Your task to perform on an android device: toggle translation in the chrome app Image 0: 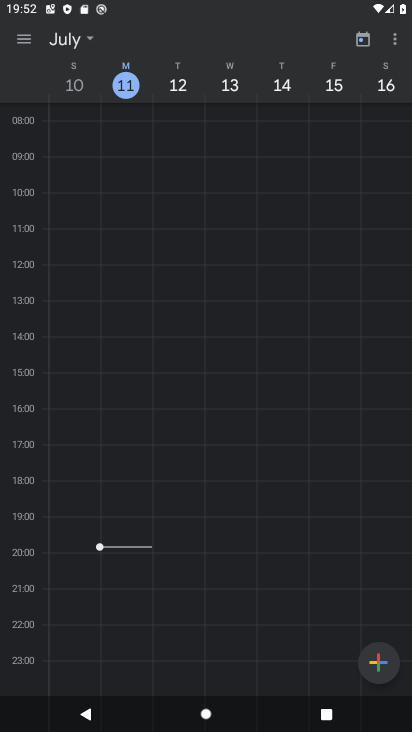
Step 0: press home button
Your task to perform on an android device: toggle translation in the chrome app Image 1: 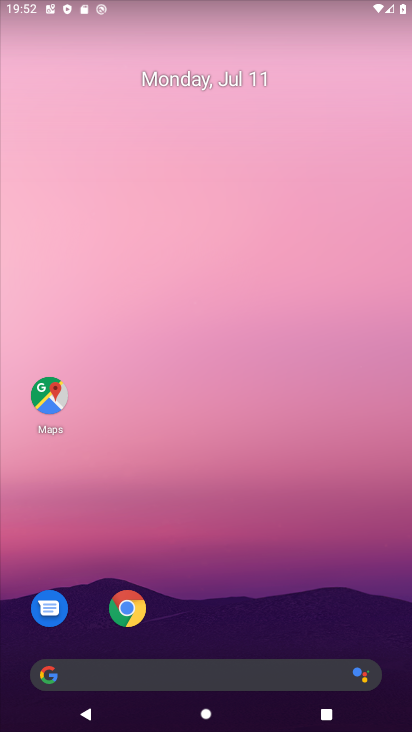
Step 1: click (128, 601)
Your task to perform on an android device: toggle translation in the chrome app Image 2: 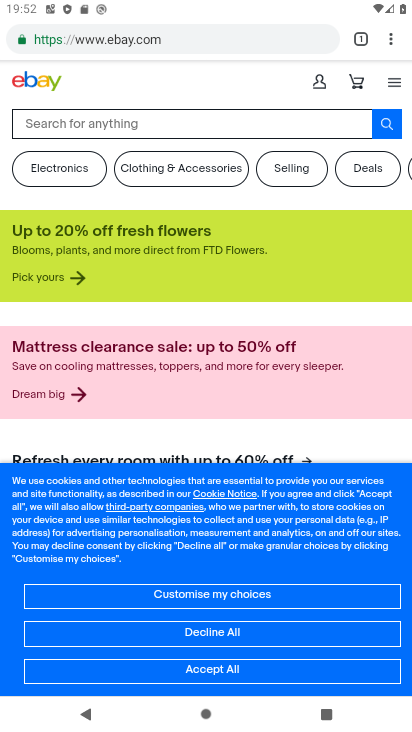
Step 2: click (396, 46)
Your task to perform on an android device: toggle translation in the chrome app Image 3: 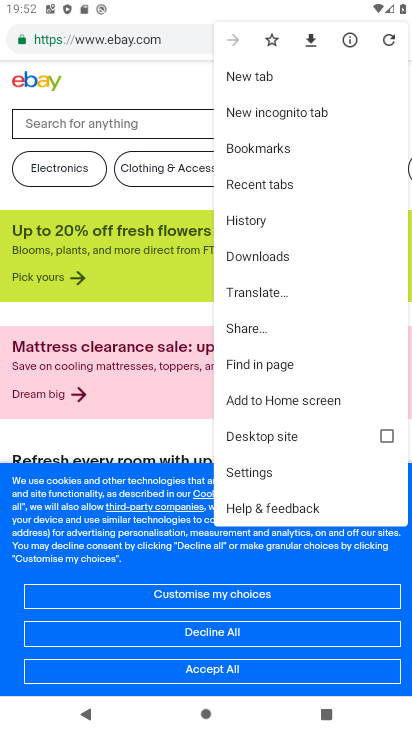
Step 3: click (260, 462)
Your task to perform on an android device: toggle translation in the chrome app Image 4: 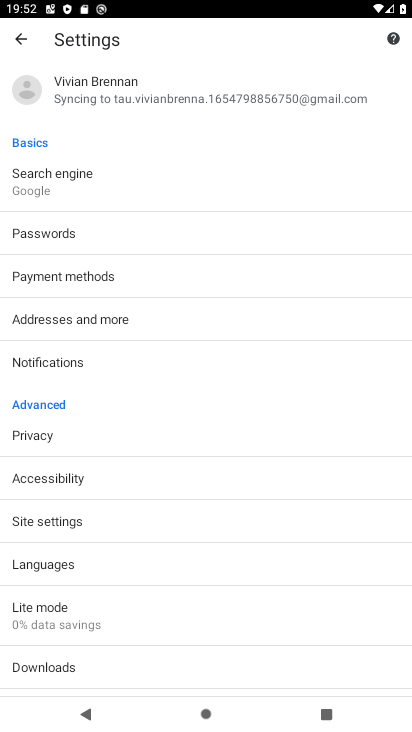
Step 4: click (162, 571)
Your task to perform on an android device: toggle translation in the chrome app Image 5: 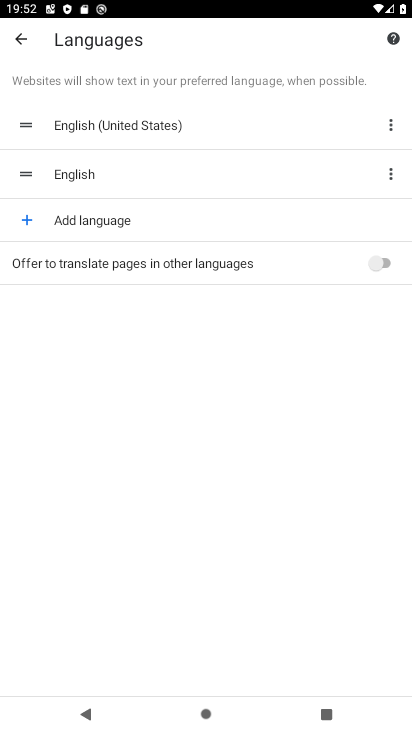
Step 5: click (313, 259)
Your task to perform on an android device: toggle translation in the chrome app Image 6: 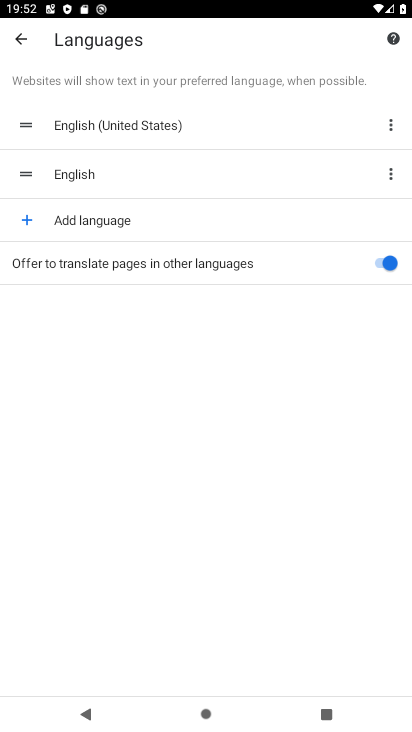
Step 6: task complete